Your task to perform on an android device: Toggle the flashlight Image 0: 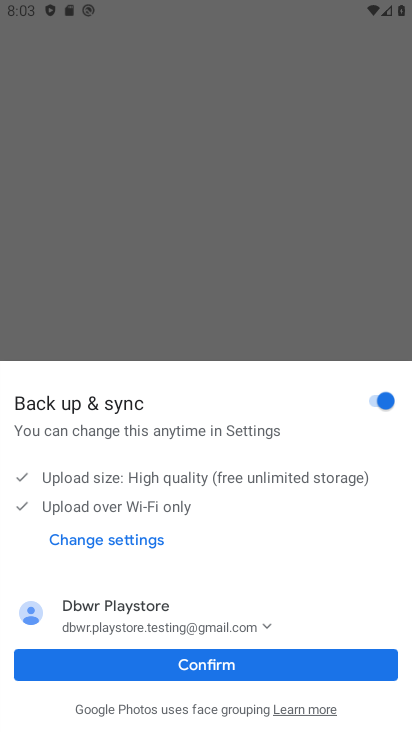
Step 0: press home button
Your task to perform on an android device: Toggle the flashlight Image 1: 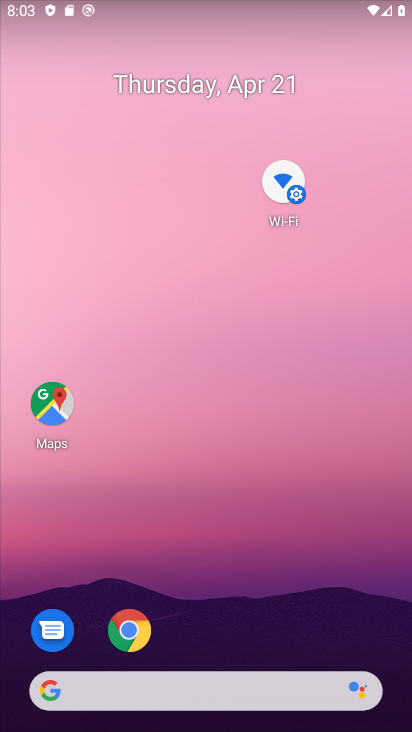
Step 1: drag from (230, 620) to (96, 56)
Your task to perform on an android device: Toggle the flashlight Image 2: 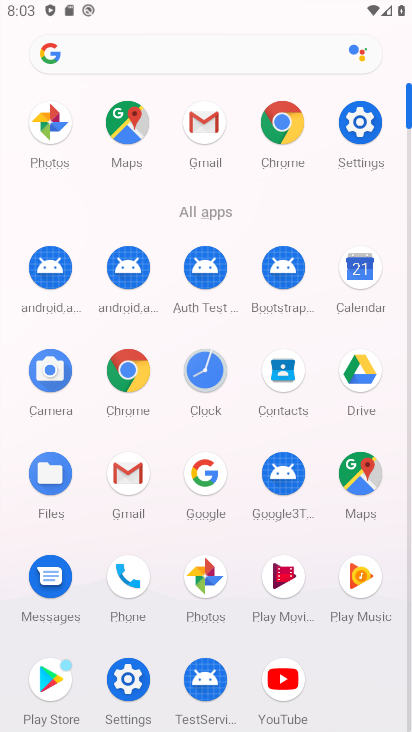
Step 2: click (365, 115)
Your task to perform on an android device: Toggle the flashlight Image 3: 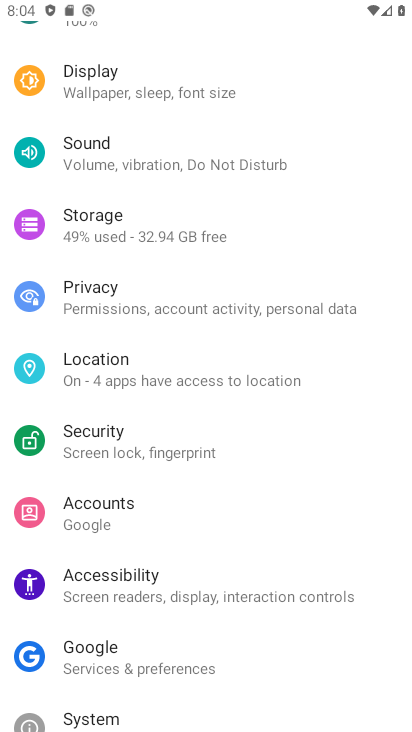
Step 3: drag from (338, 126) to (319, 505)
Your task to perform on an android device: Toggle the flashlight Image 4: 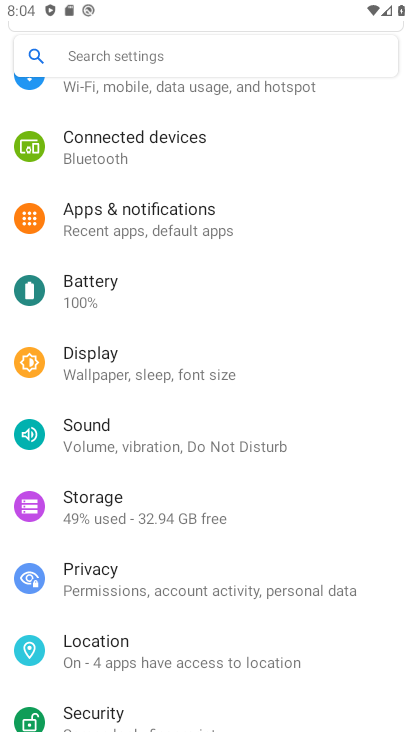
Step 4: click (144, 51)
Your task to perform on an android device: Toggle the flashlight Image 5: 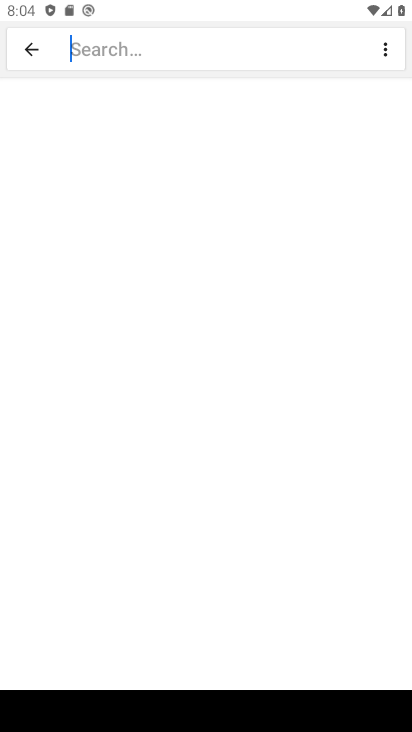
Step 5: click (105, 44)
Your task to perform on an android device: Toggle the flashlight Image 6: 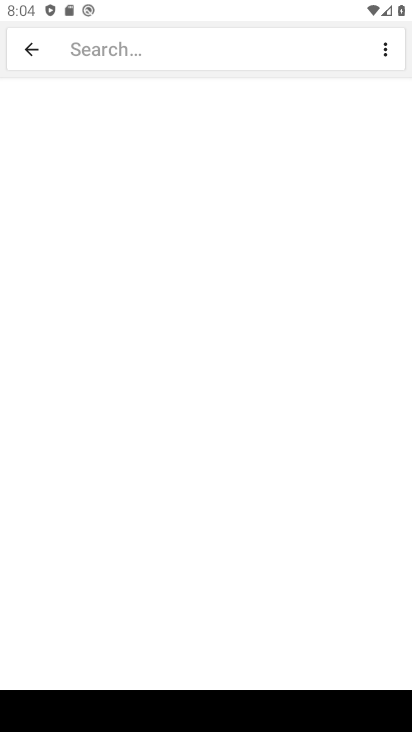
Step 6: type "flashlight"
Your task to perform on an android device: Toggle the flashlight Image 7: 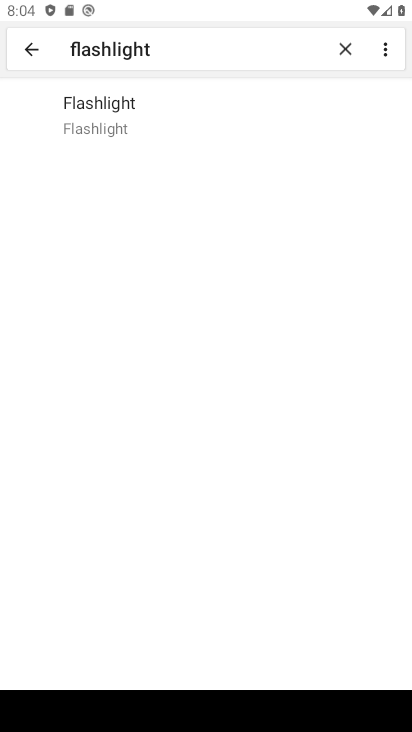
Step 7: click (93, 105)
Your task to perform on an android device: Toggle the flashlight Image 8: 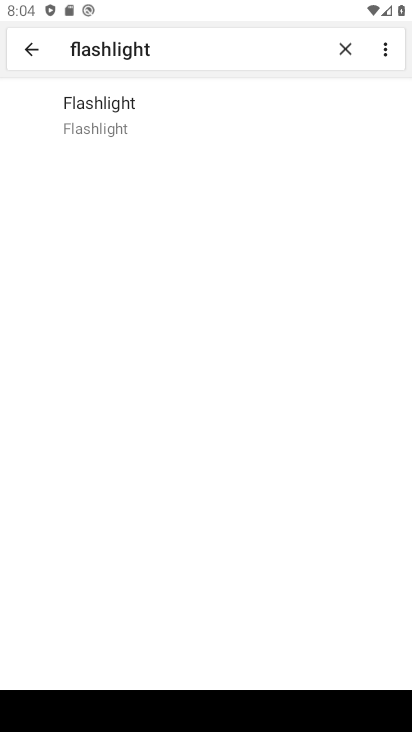
Step 8: task complete